Your task to perform on an android device: Go to Wikipedia Image 0: 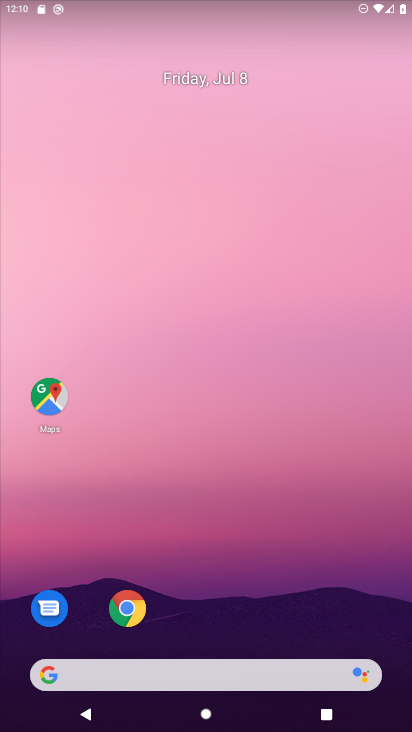
Step 0: click (129, 605)
Your task to perform on an android device: Go to Wikipedia Image 1: 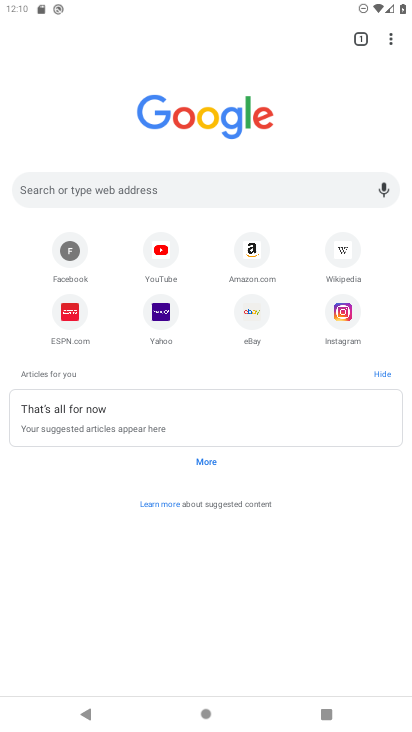
Step 1: click (345, 248)
Your task to perform on an android device: Go to Wikipedia Image 2: 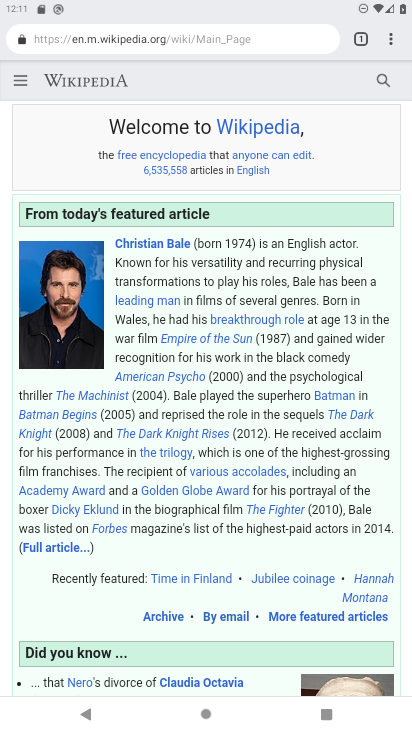
Step 2: task complete